Your task to perform on an android device: Turn off the flashlight Image 0: 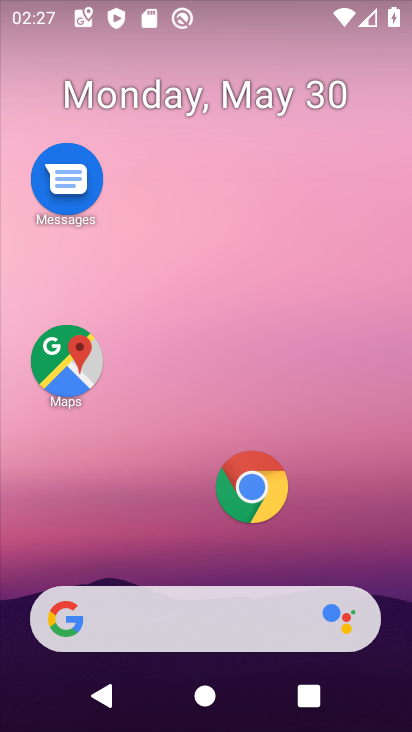
Step 0: drag from (289, 559) to (134, 0)
Your task to perform on an android device: Turn off the flashlight Image 1: 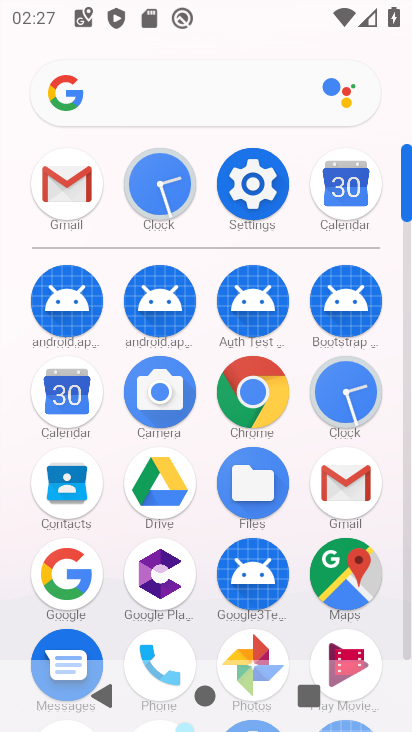
Step 1: click (264, 177)
Your task to perform on an android device: Turn off the flashlight Image 2: 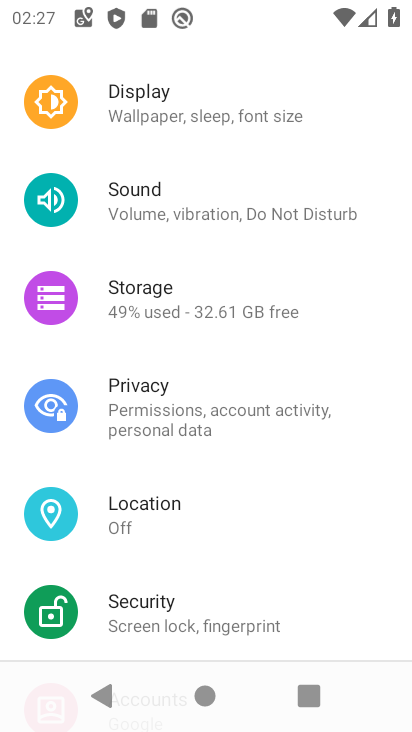
Step 2: task complete